Your task to perform on an android device: Do I have any events today? Image 0: 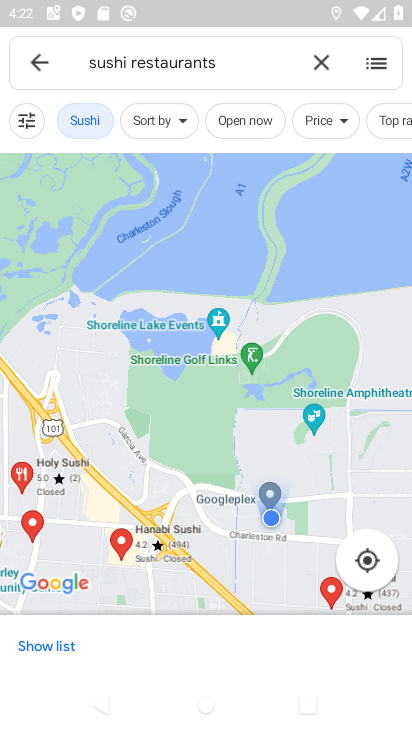
Step 0: drag from (225, 602) to (181, 240)
Your task to perform on an android device: Do I have any events today? Image 1: 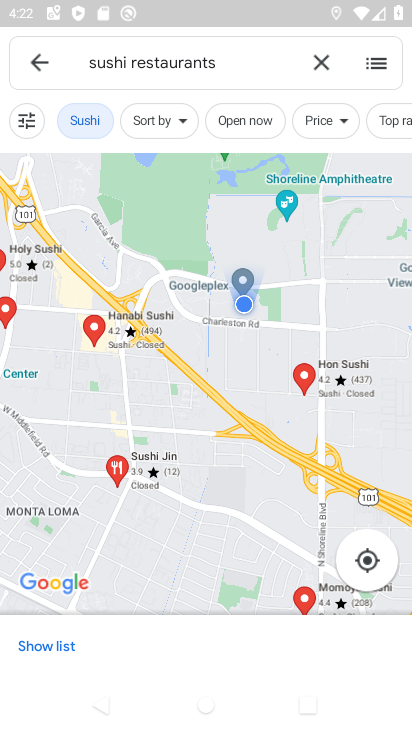
Step 1: press home button
Your task to perform on an android device: Do I have any events today? Image 2: 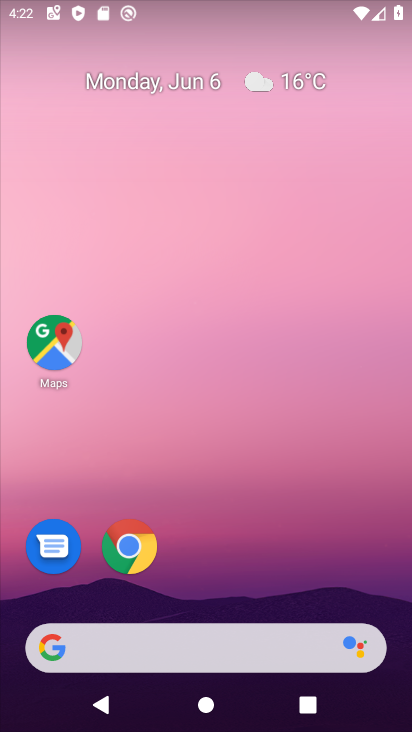
Step 2: drag from (227, 617) to (165, 0)
Your task to perform on an android device: Do I have any events today? Image 3: 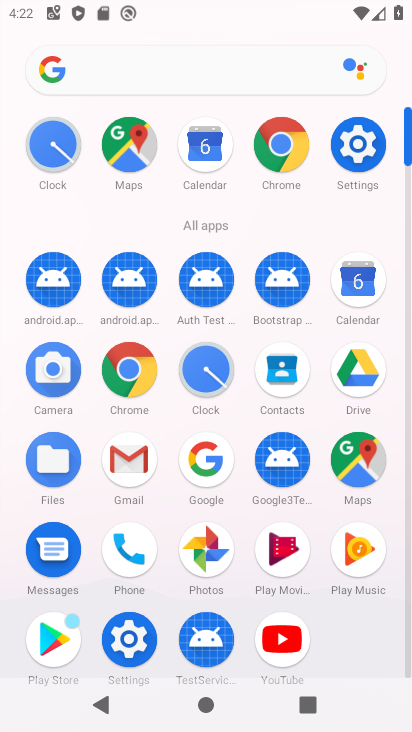
Step 3: click (343, 292)
Your task to perform on an android device: Do I have any events today? Image 4: 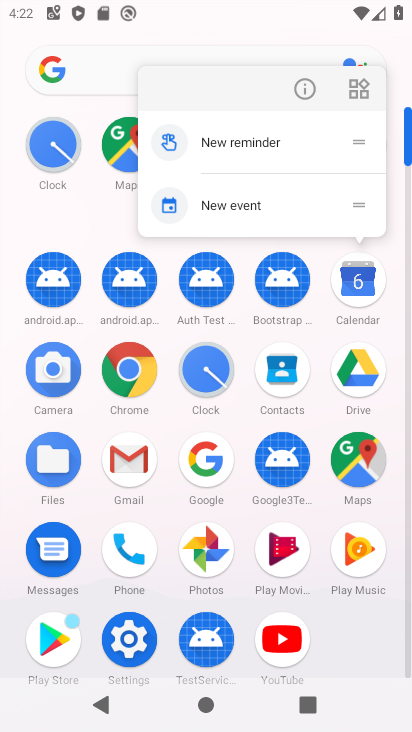
Step 4: click (351, 292)
Your task to perform on an android device: Do I have any events today? Image 5: 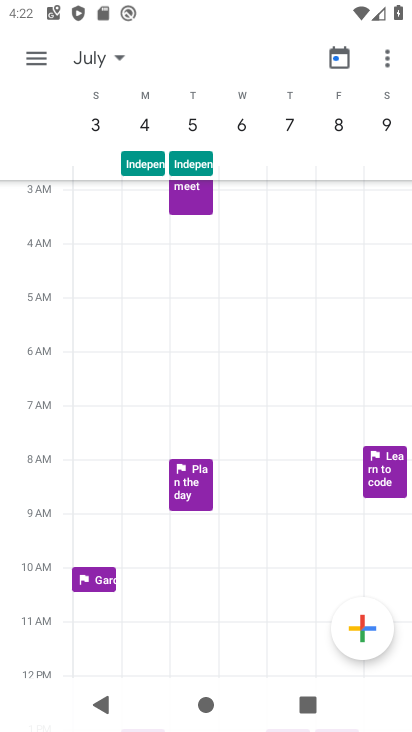
Step 5: click (328, 58)
Your task to perform on an android device: Do I have any events today? Image 6: 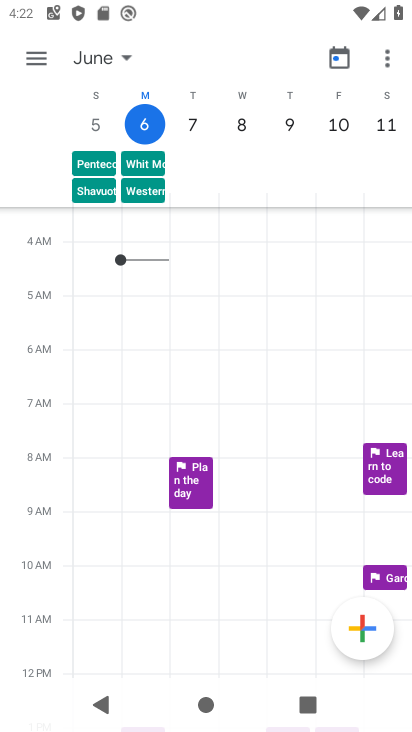
Step 6: click (155, 116)
Your task to perform on an android device: Do I have any events today? Image 7: 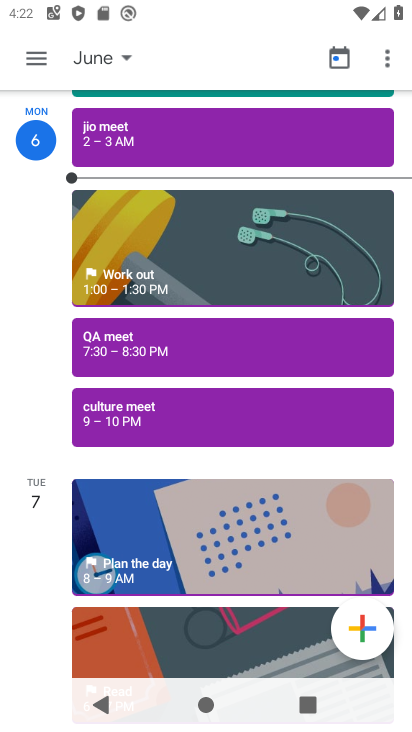
Step 7: task complete